Your task to perform on an android device: Open Google Chrome and click the shortcut for Amazon.com Image 0: 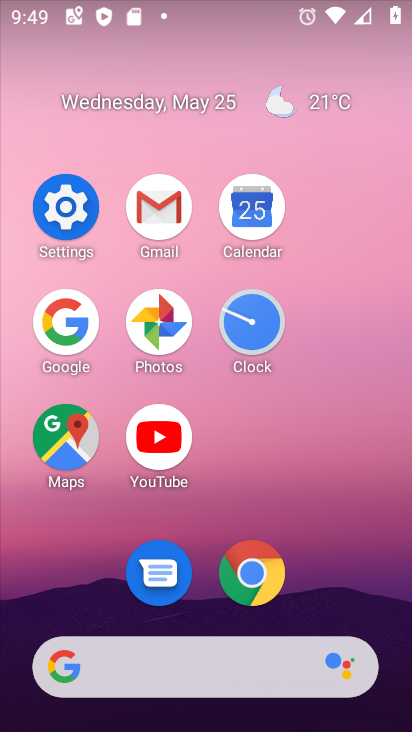
Step 0: click (275, 566)
Your task to perform on an android device: Open Google Chrome and click the shortcut for Amazon.com Image 1: 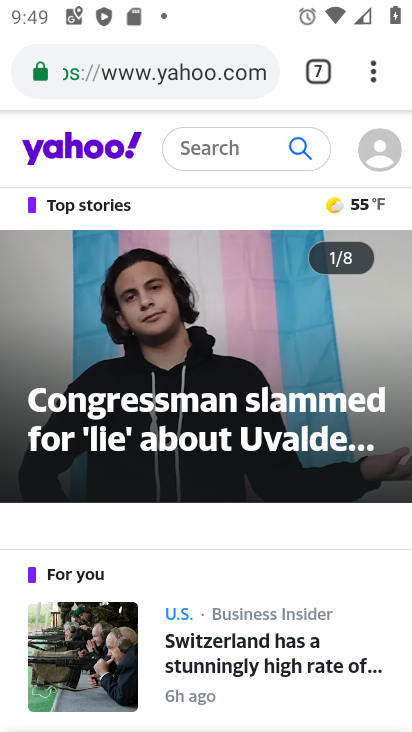
Step 1: click (329, 64)
Your task to perform on an android device: Open Google Chrome and click the shortcut for Amazon.com Image 2: 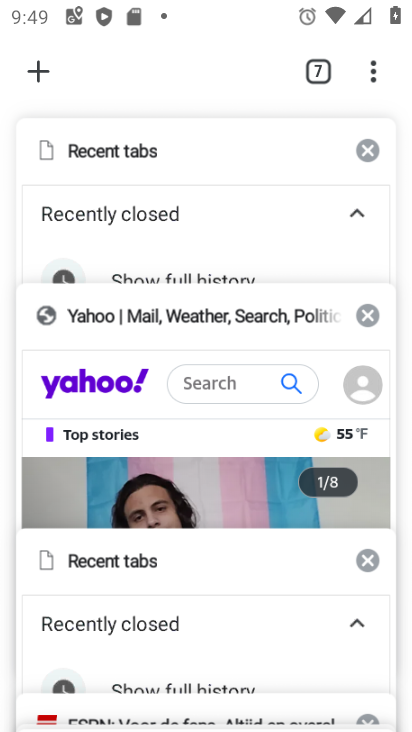
Step 2: drag from (156, 168) to (255, 602)
Your task to perform on an android device: Open Google Chrome and click the shortcut for Amazon.com Image 3: 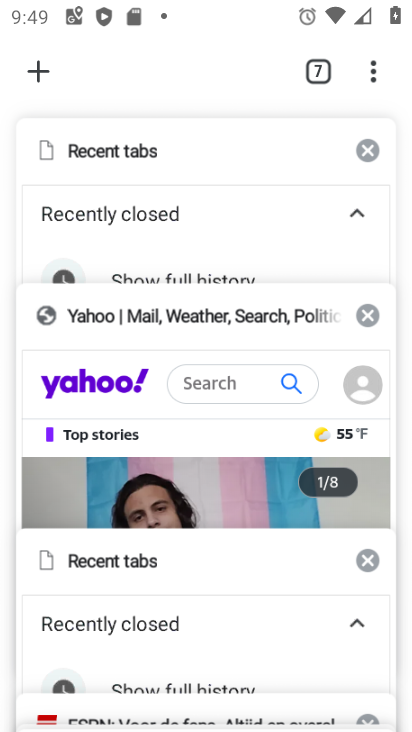
Step 3: drag from (238, 583) to (214, 152)
Your task to perform on an android device: Open Google Chrome and click the shortcut for Amazon.com Image 4: 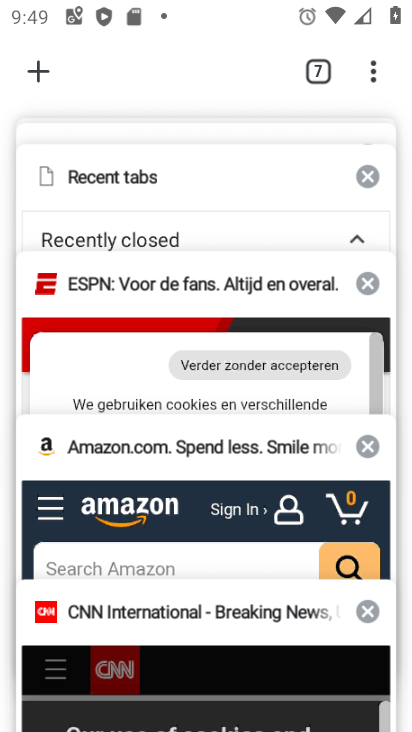
Step 4: click (163, 521)
Your task to perform on an android device: Open Google Chrome and click the shortcut for Amazon.com Image 5: 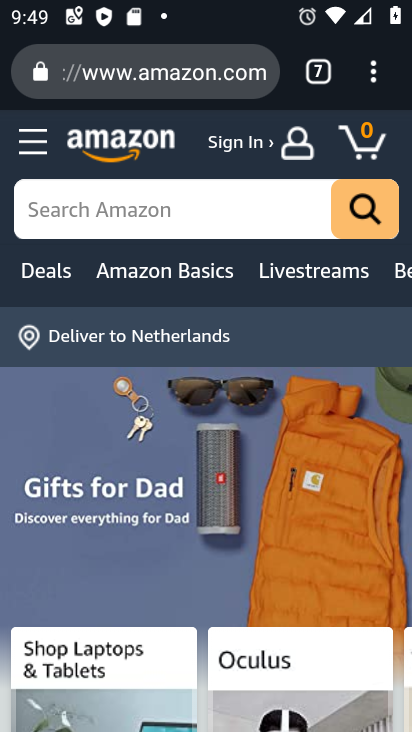
Step 5: click (366, 62)
Your task to perform on an android device: Open Google Chrome and click the shortcut for Amazon.com Image 6: 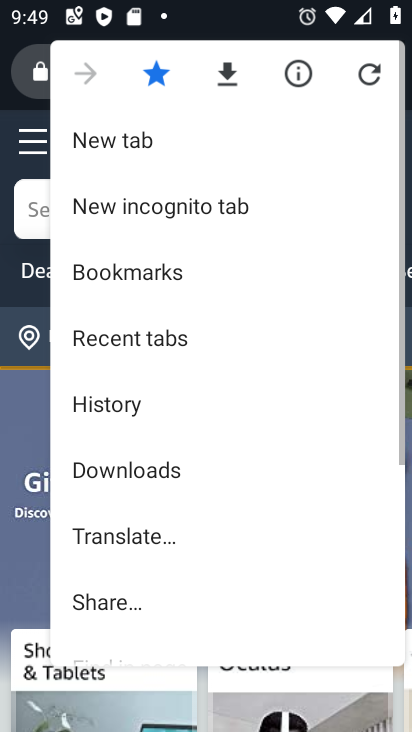
Step 6: drag from (236, 490) to (252, 149)
Your task to perform on an android device: Open Google Chrome and click the shortcut for Amazon.com Image 7: 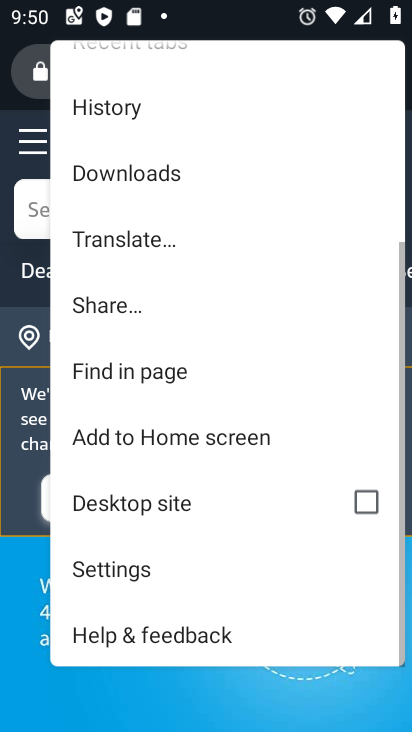
Step 7: click (248, 426)
Your task to perform on an android device: Open Google Chrome and click the shortcut for Amazon.com Image 8: 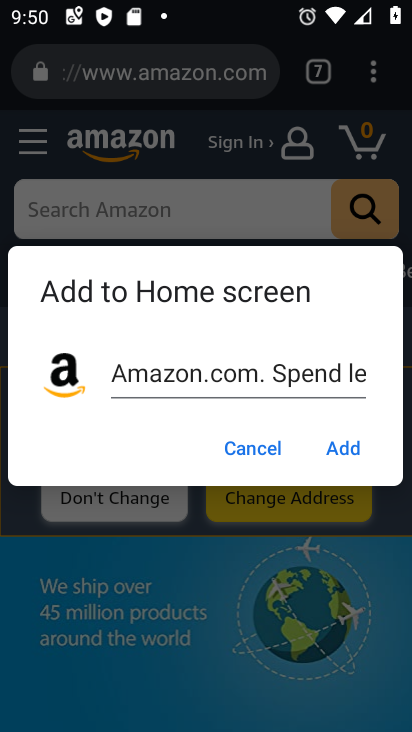
Step 8: click (358, 443)
Your task to perform on an android device: Open Google Chrome and click the shortcut for Amazon.com Image 9: 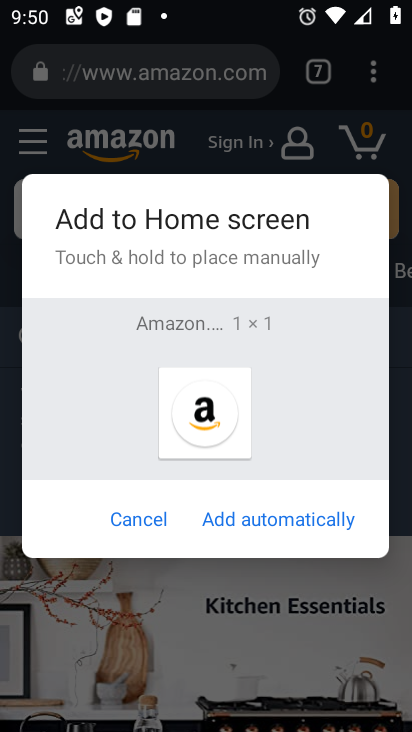
Step 9: click (318, 523)
Your task to perform on an android device: Open Google Chrome and click the shortcut for Amazon.com Image 10: 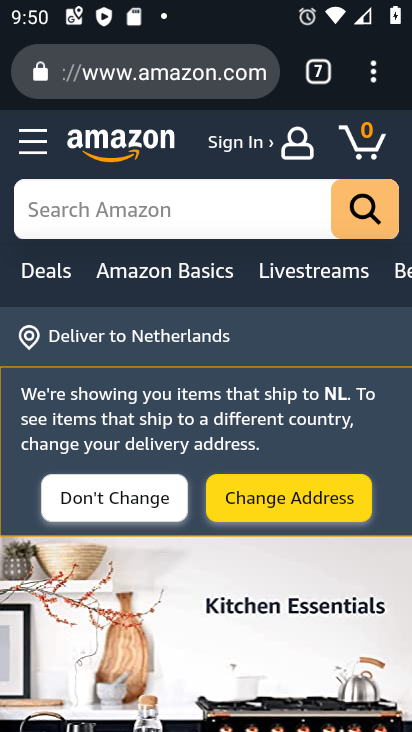
Step 10: task complete